Your task to perform on an android device: change the clock display to analog Image 0: 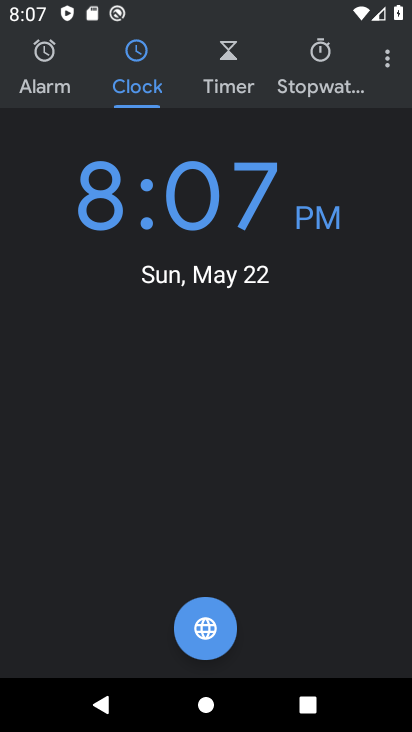
Step 0: press home button
Your task to perform on an android device: change the clock display to analog Image 1: 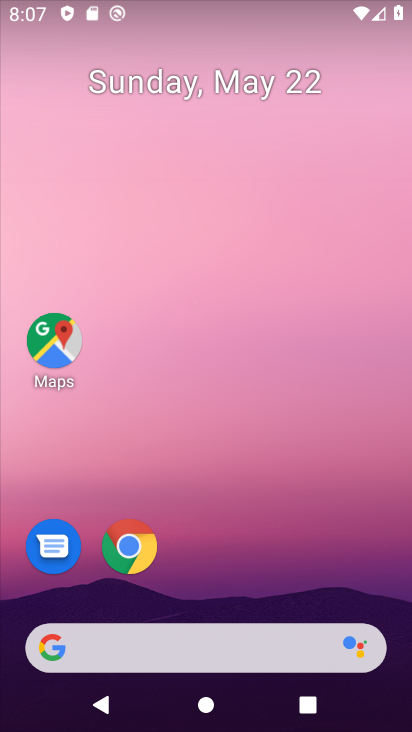
Step 1: drag from (222, 592) to (217, 0)
Your task to perform on an android device: change the clock display to analog Image 2: 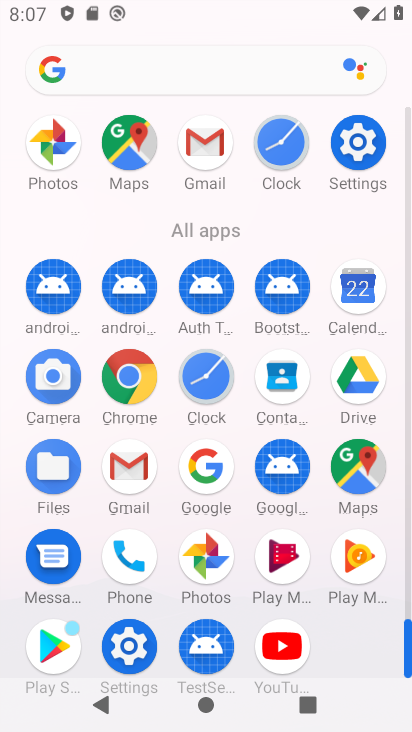
Step 2: click (204, 389)
Your task to perform on an android device: change the clock display to analog Image 3: 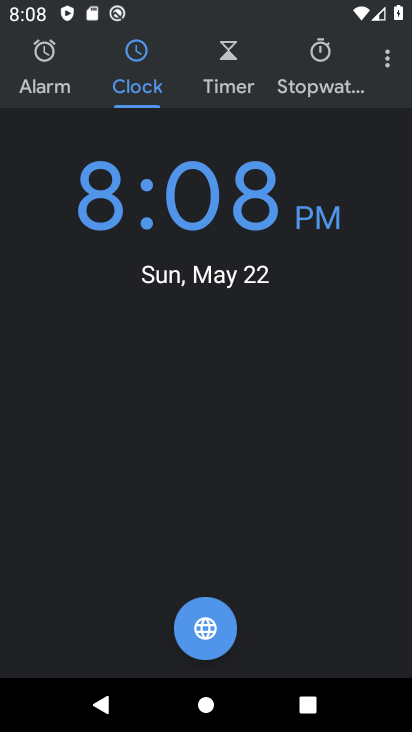
Step 3: click (386, 63)
Your task to perform on an android device: change the clock display to analog Image 4: 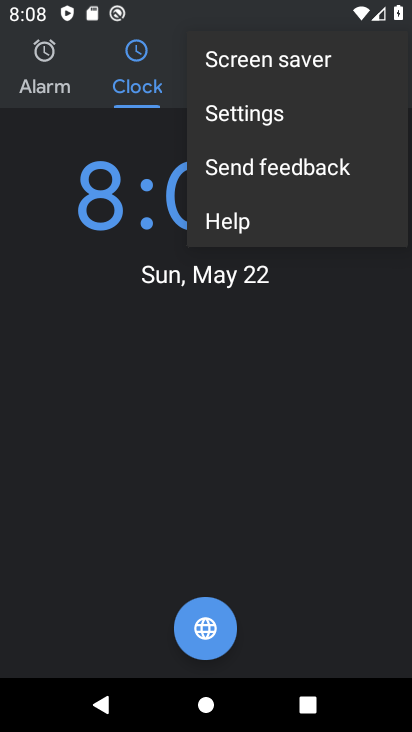
Step 4: click (266, 116)
Your task to perform on an android device: change the clock display to analog Image 5: 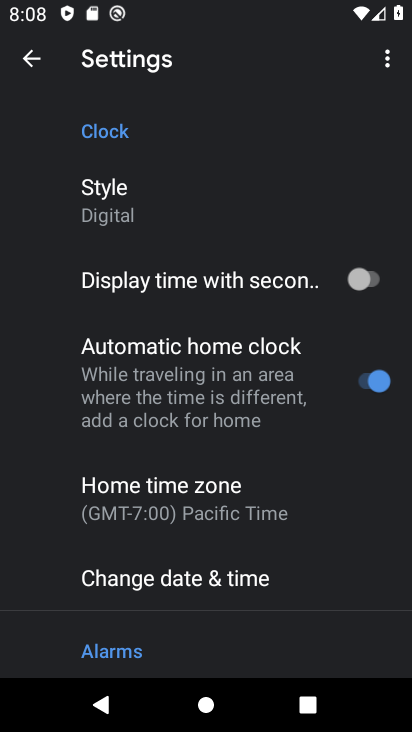
Step 5: click (153, 214)
Your task to perform on an android device: change the clock display to analog Image 6: 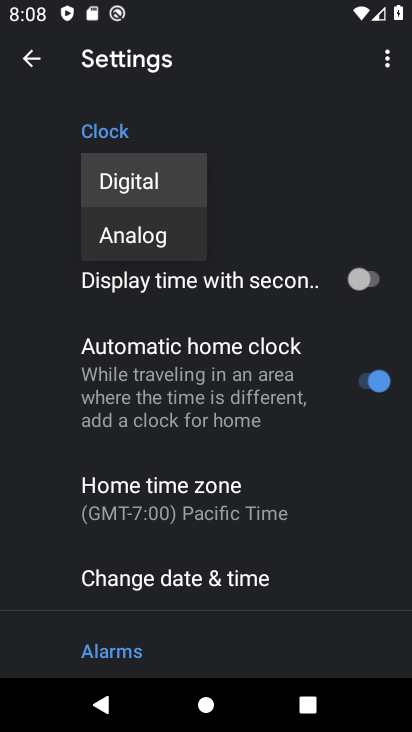
Step 6: click (159, 245)
Your task to perform on an android device: change the clock display to analog Image 7: 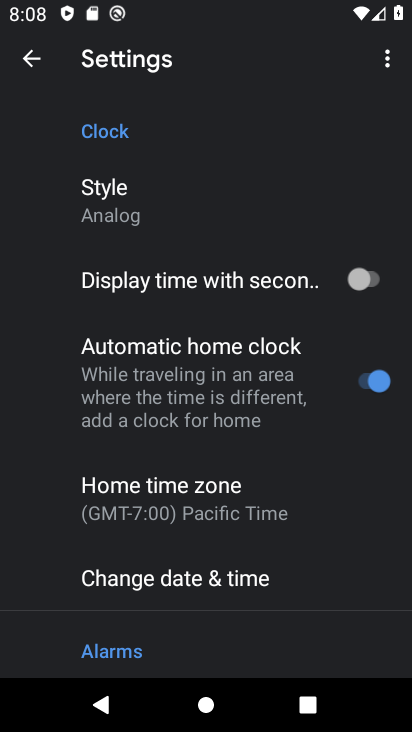
Step 7: task complete